Your task to perform on an android device: turn off location Image 0: 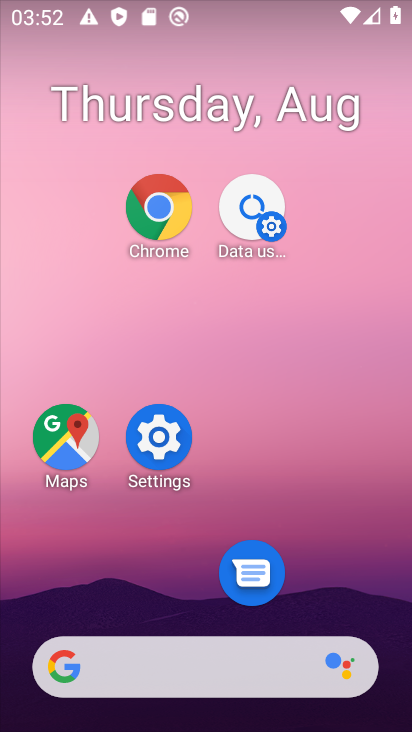
Step 0: drag from (237, 699) to (78, 192)
Your task to perform on an android device: turn off location Image 1: 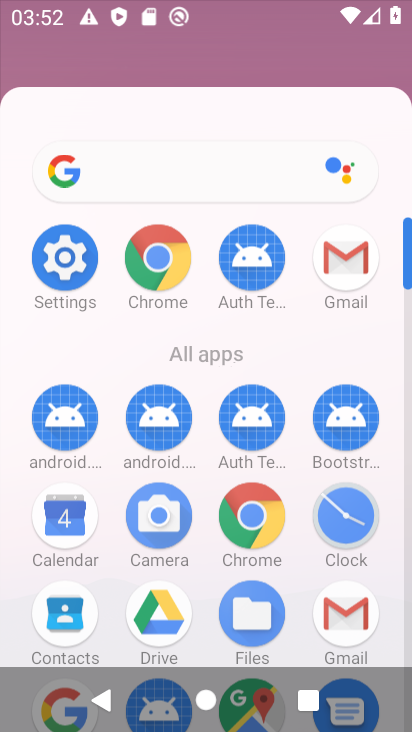
Step 1: drag from (174, 527) to (129, 112)
Your task to perform on an android device: turn off location Image 2: 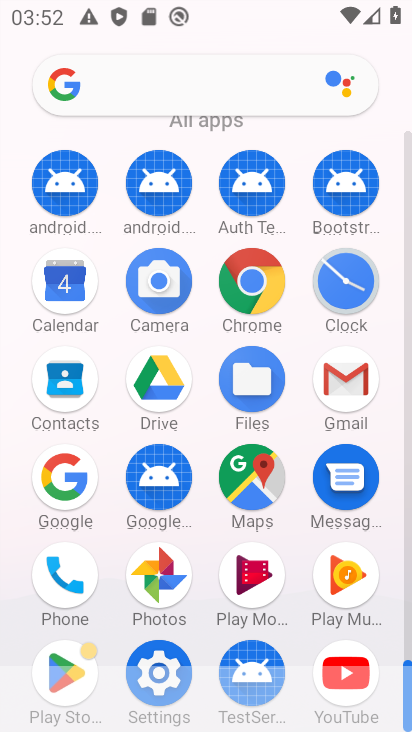
Step 2: click (156, 658)
Your task to perform on an android device: turn off location Image 3: 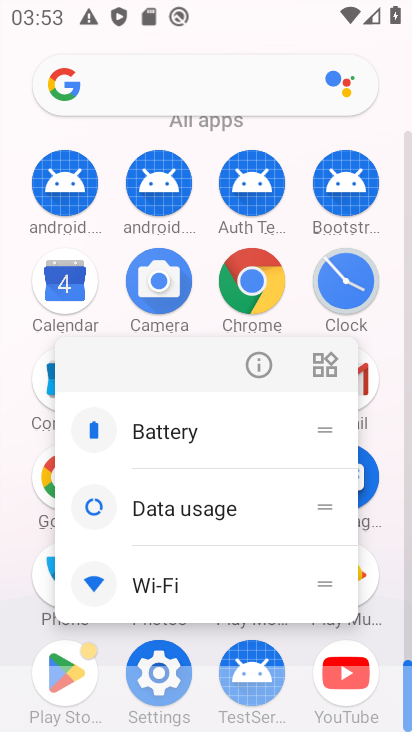
Step 3: click (186, 442)
Your task to perform on an android device: turn off location Image 4: 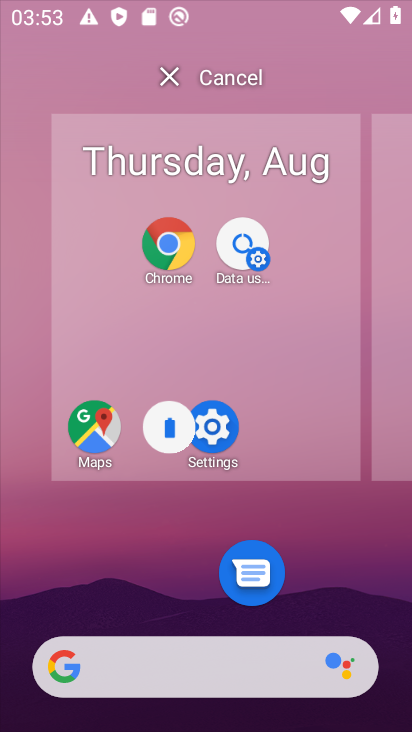
Step 4: click (188, 439)
Your task to perform on an android device: turn off location Image 5: 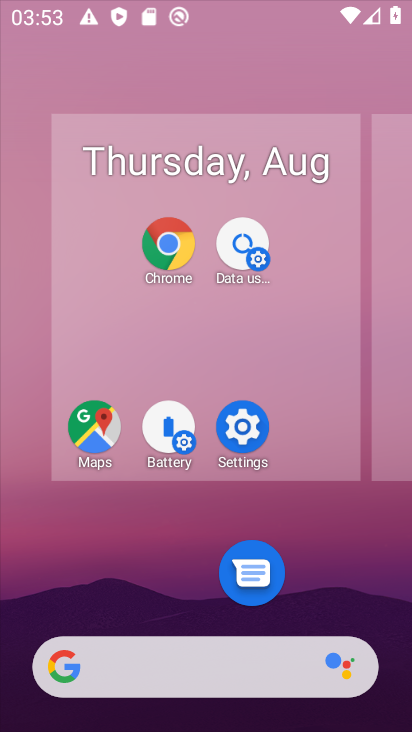
Step 5: click (190, 430)
Your task to perform on an android device: turn off location Image 6: 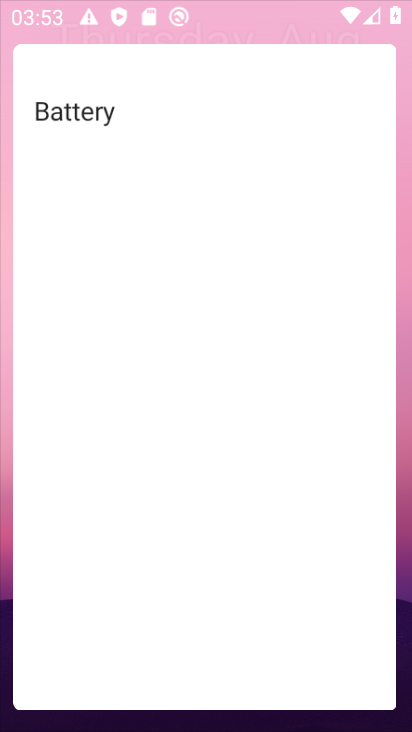
Step 6: drag from (182, 601) to (110, 14)
Your task to perform on an android device: turn off location Image 7: 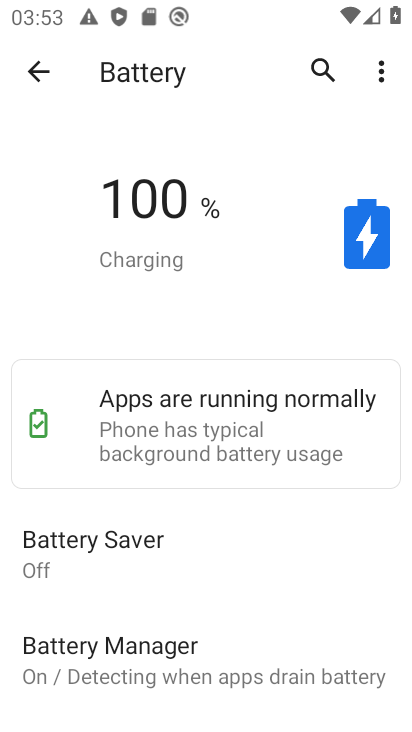
Step 7: click (31, 59)
Your task to perform on an android device: turn off location Image 8: 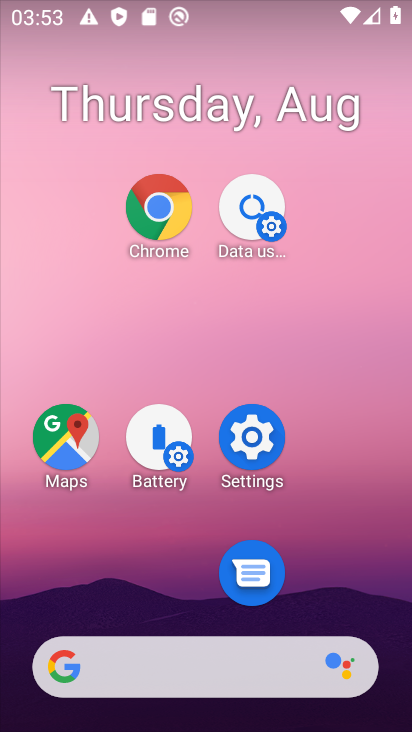
Step 8: drag from (147, 551) to (154, 227)
Your task to perform on an android device: turn off location Image 9: 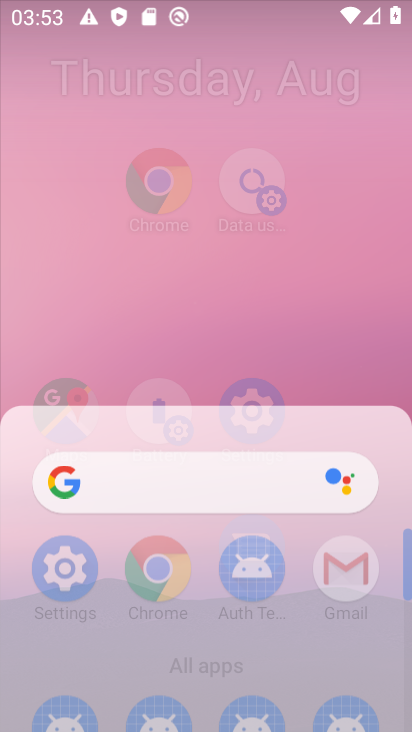
Step 9: drag from (210, 553) to (154, 285)
Your task to perform on an android device: turn off location Image 10: 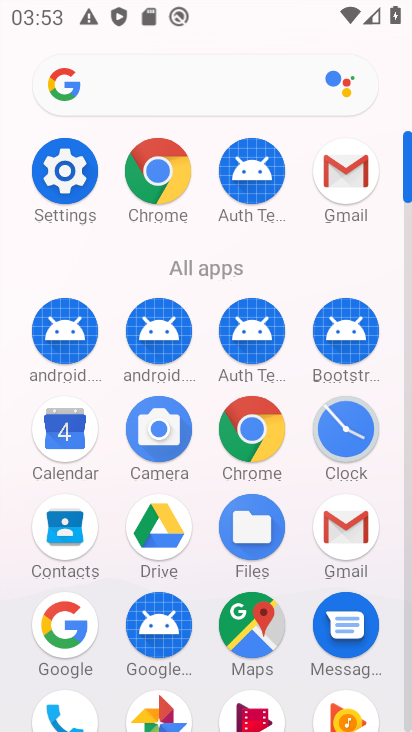
Step 10: click (65, 172)
Your task to perform on an android device: turn off location Image 11: 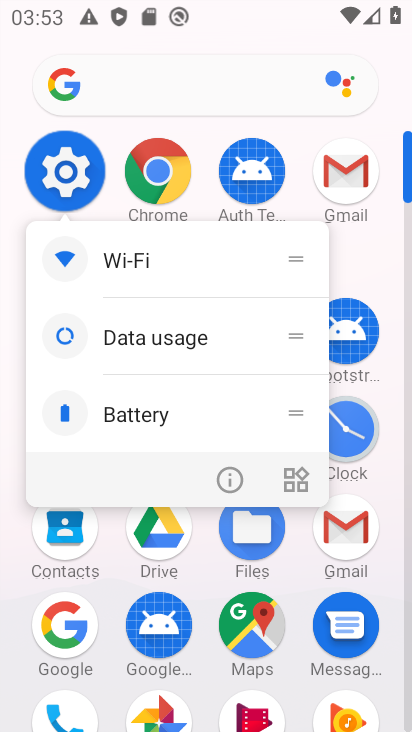
Step 11: click (65, 163)
Your task to perform on an android device: turn off location Image 12: 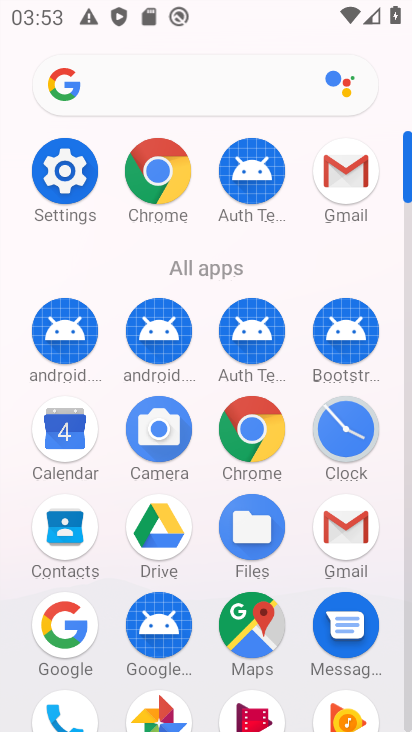
Step 12: click (48, 157)
Your task to perform on an android device: turn off location Image 13: 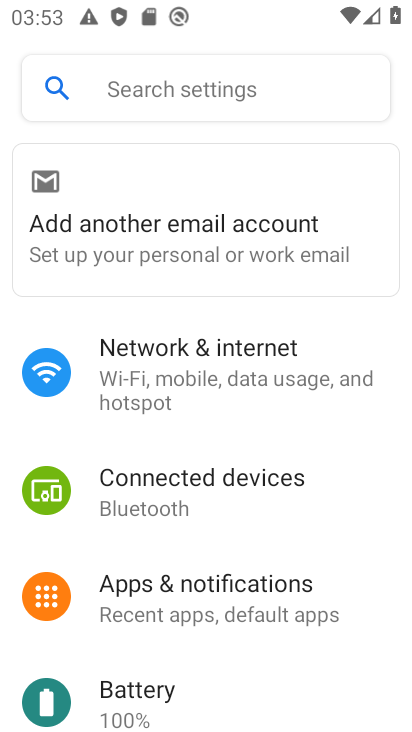
Step 13: drag from (206, 590) to (99, 292)
Your task to perform on an android device: turn off location Image 14: 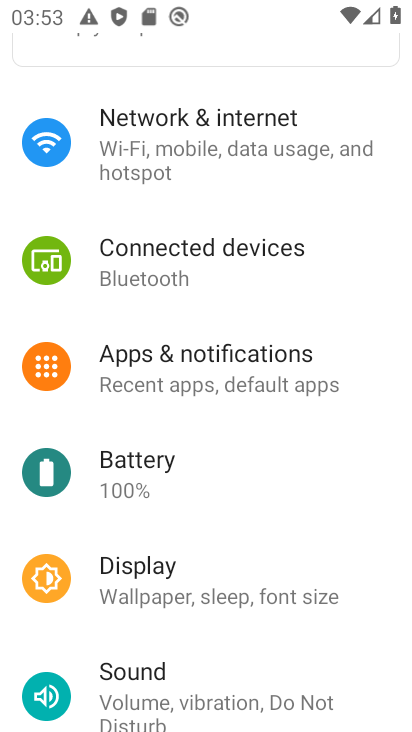
Step 14: drag from (158, 468) to (158, 341)
Your task to perform on an android device: turn off location Image 15: 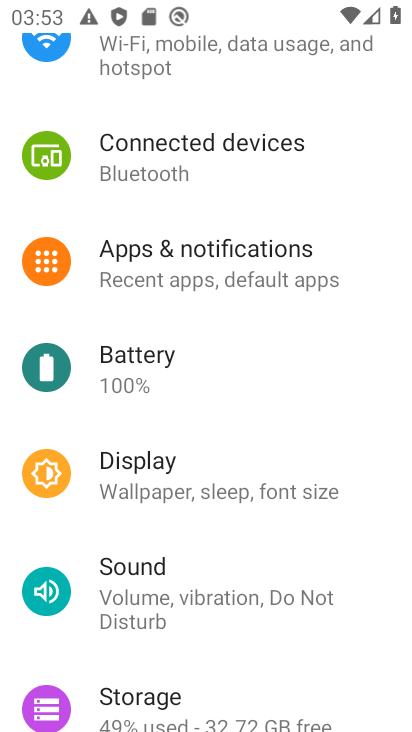
Step 15: drag from (178, 614) to (130, 312)
Your task to perform on an android device: turn off location Image 16: 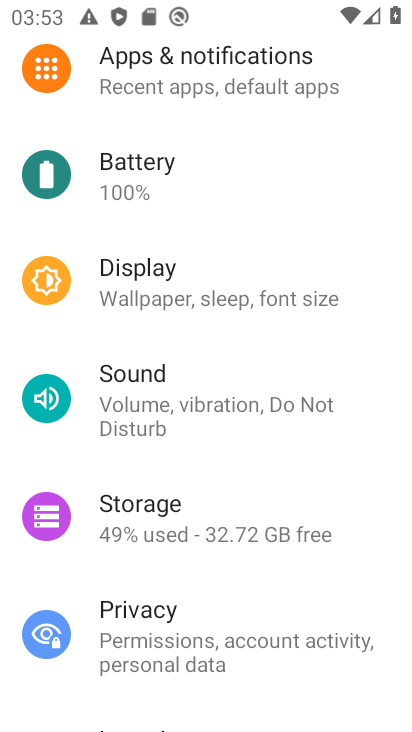
Step 16: drag from (162, 424) to (143, 278)
Your task to perform on an android device: turn off location Image 17: 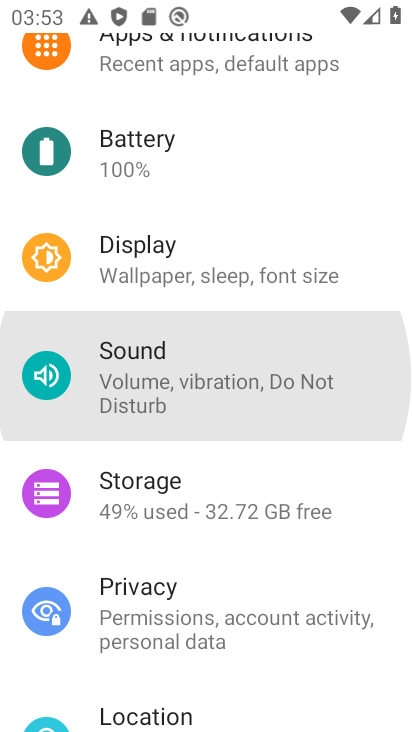
Step 17: drag from (132, 475) to (59, 270)
Your task to perform on an android device: turn off location Image 18: 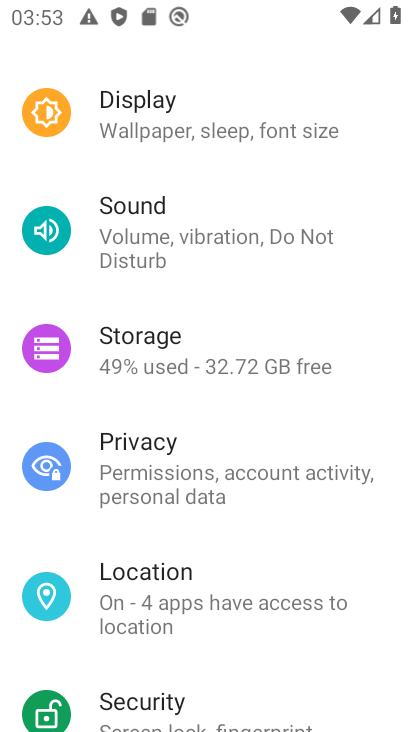
Step 18: click (143, 586)
Your task to perform on an android device: turn off location Image 19: 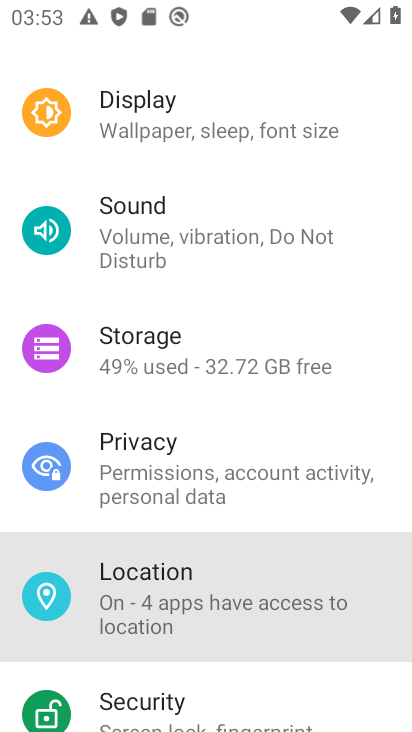
Step 19: click (143, 586)
Your task to perform on an android device: turn off location Image 20: 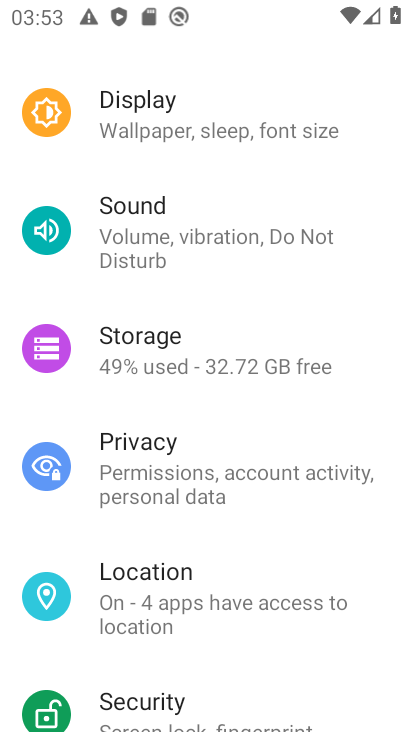
Step 20: click (143, 586)
Your task to perform on an android device: turn off location Image 21: 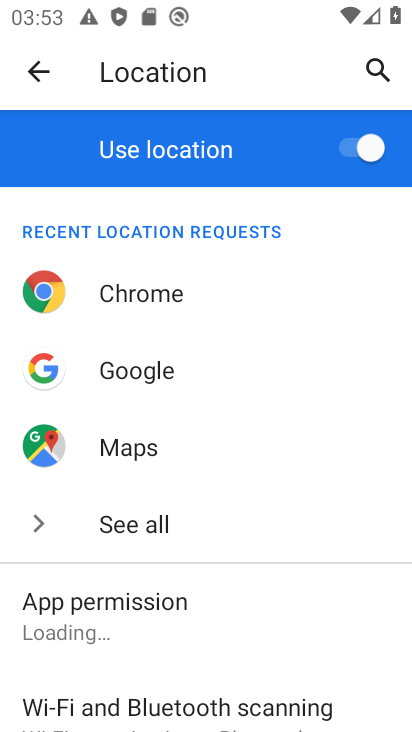
Step 21: task complete